Your task to perform on an android device: install app "Gboard" Image 0: 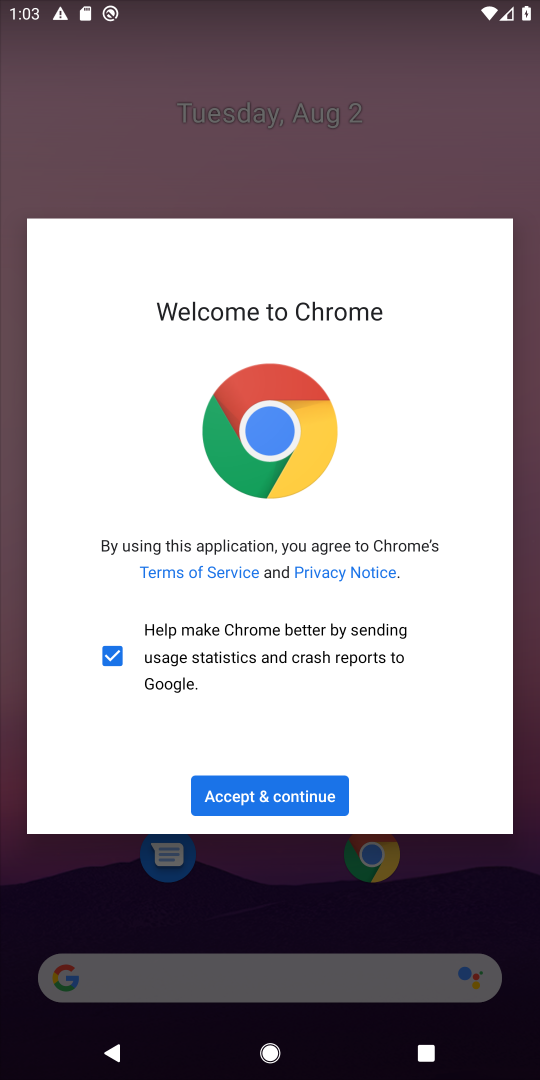
Step 0: press home button
Your task to perform on an android device: install app "Gboard" Image 1: 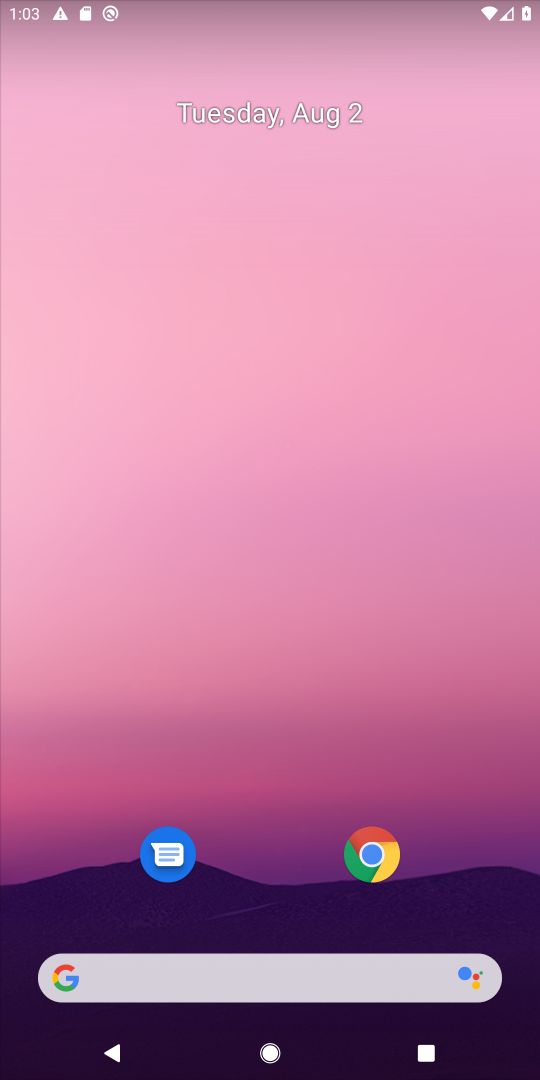
Step 1: drag from (309, 1013) to (309, 110)
Your task to perform on an android device: install app "Gboard" Image 2: 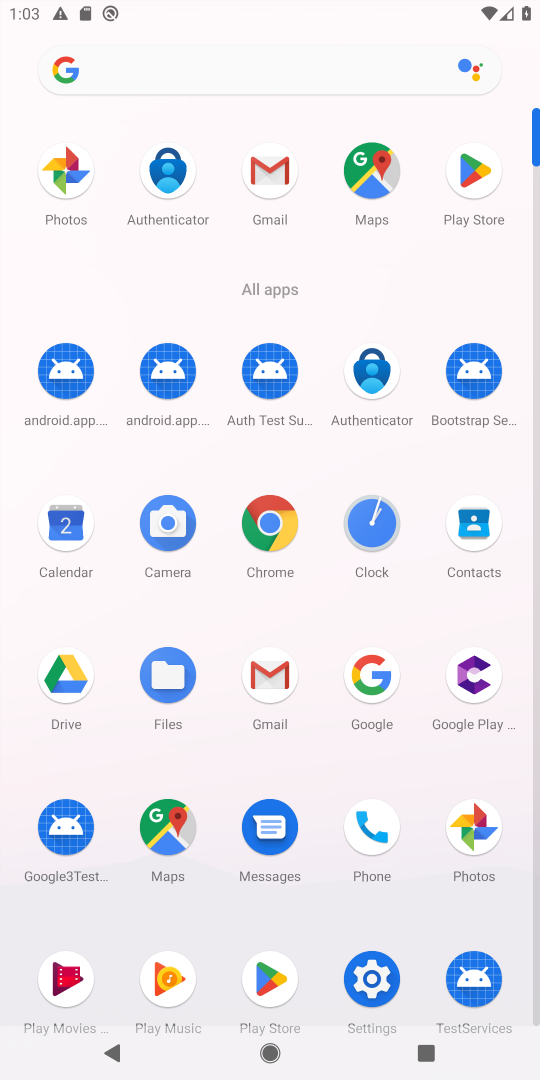
Step 2: click (480, 166)
Your task to perform on an android device: install app "Gboard" Image 3: 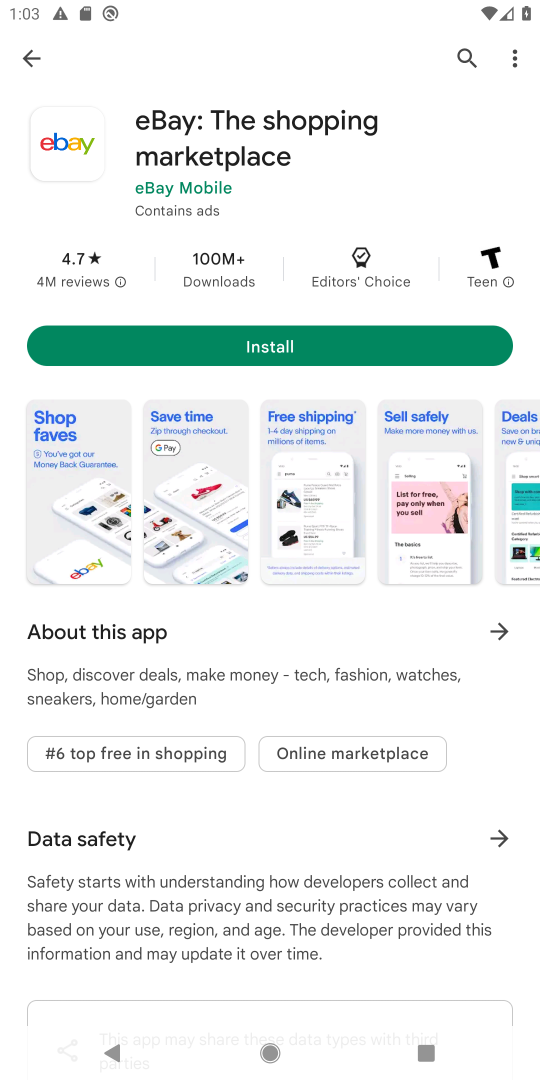
Step 3: click (465, 51)
Your task to perform on an android device: install app "Gboard" Image 4: 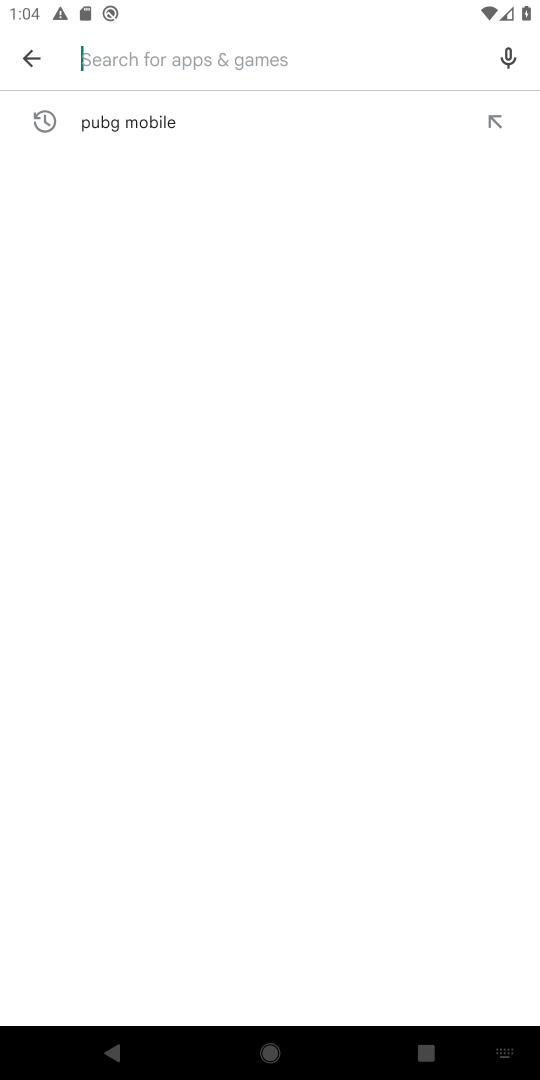
Step 4: type "Gboard"
Your task to perform on an android device: install app "Gboard" Image 5: 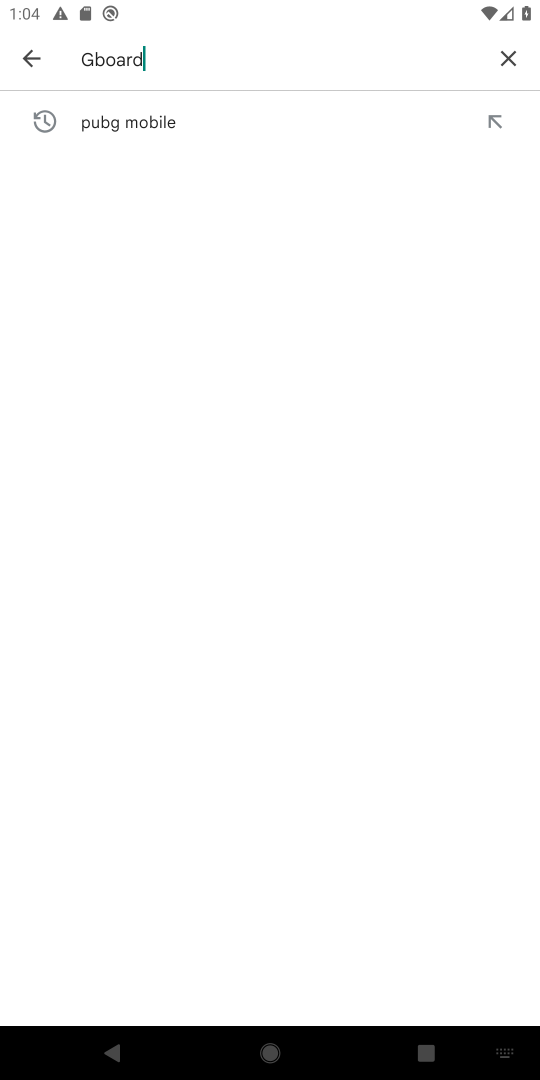
Step 5: type ""
Your task to perform on an android device: install app "Gboard" Image 6: 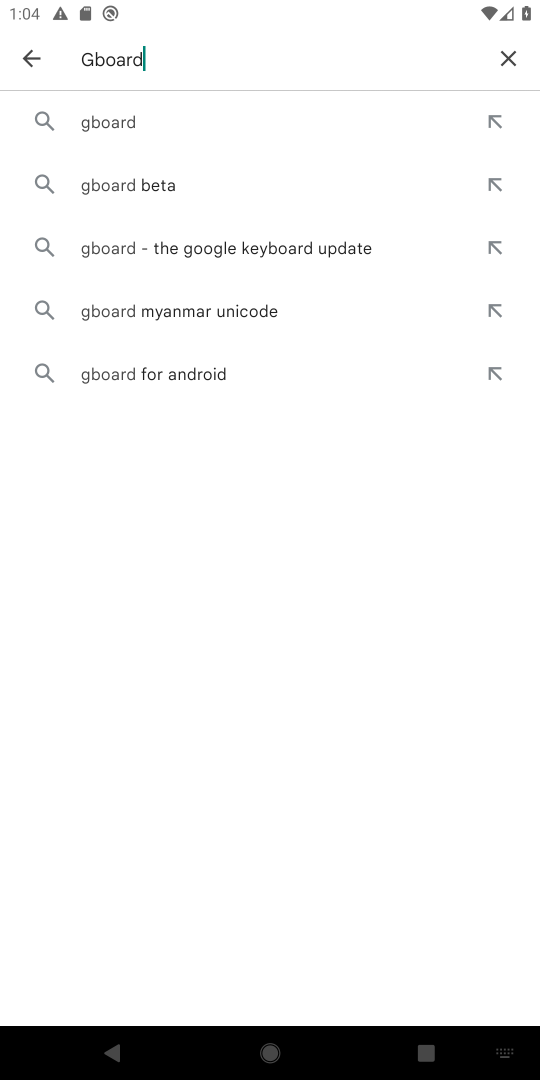
Step 6: click (116, 125)
Your task to perform on an android device: install app "Gboard" Image 7: 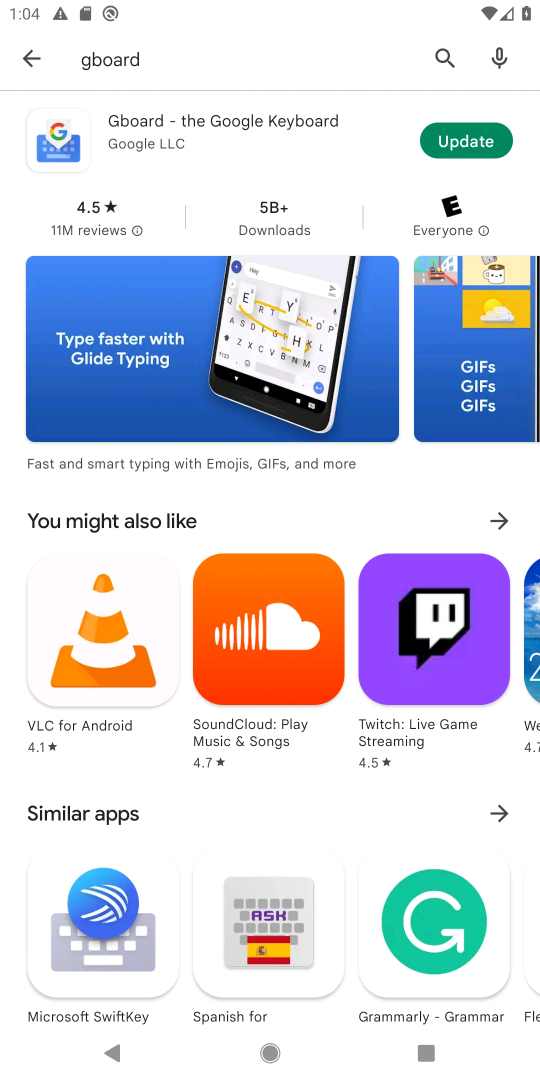
Step 7: task complete